Your task to perform on an android device: show emergency info Image 0: 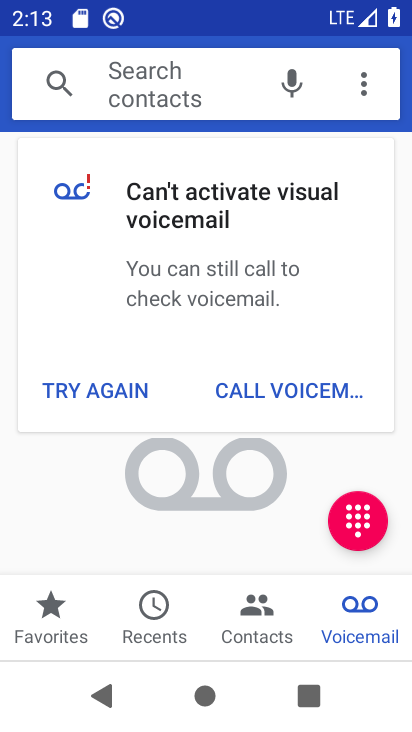
Step 0: press home button
Your task to perform on an android device: show emergency info Image 1: 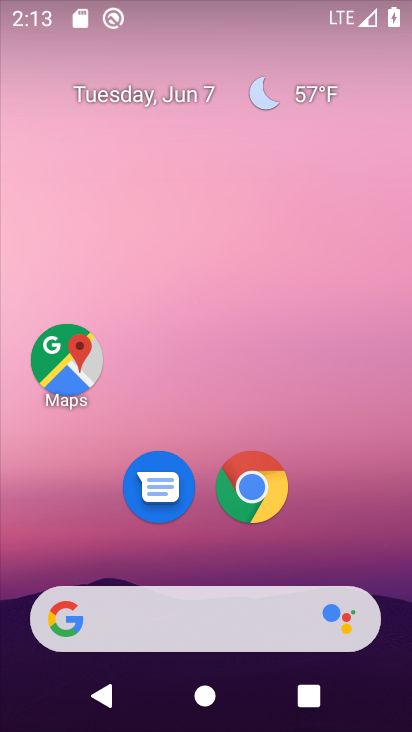
Step 1: drag from (223, 574) to (10, 410)
Your task to perform on an android device: show emergency info Image 2: 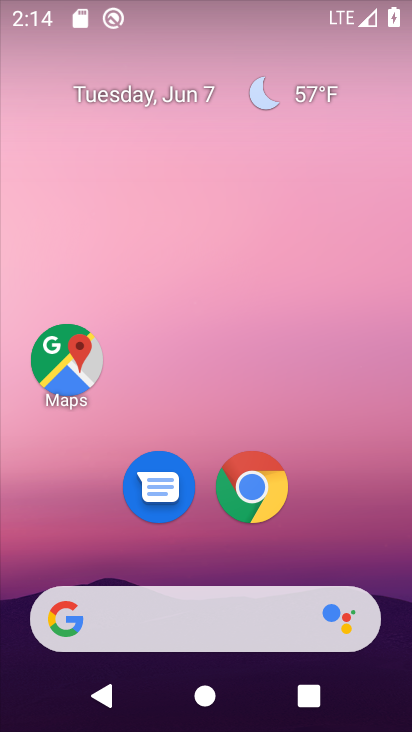
Step 2: click (258, 183)
Your task to perform on an android device: show emergency info Image 3: 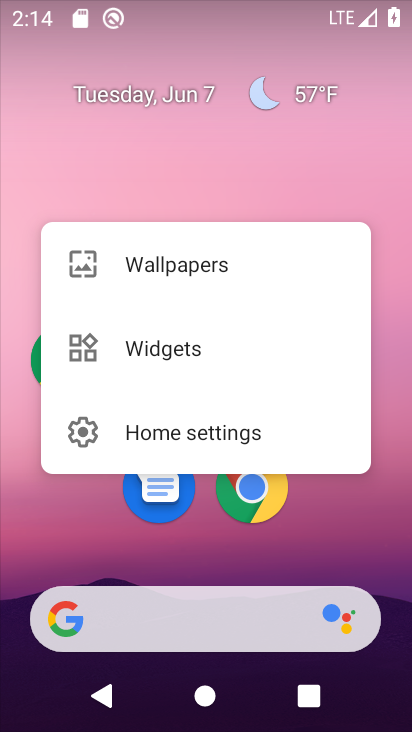
Step 3: click (176, 551)
Your task to perform on an android device: show emergency info Image 4: 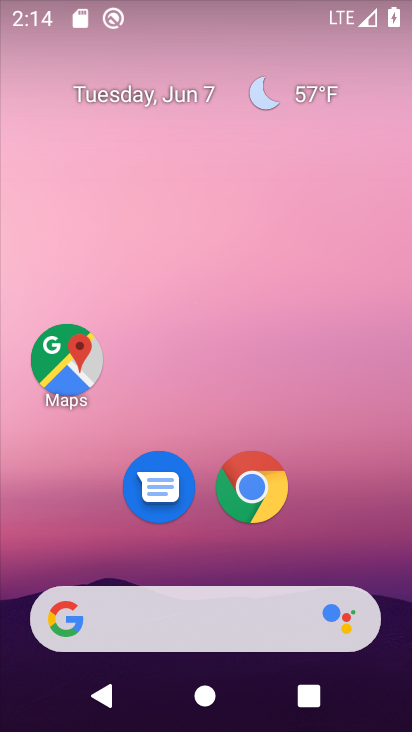
Step 4: drag from (204, 600) to (295, 206)
Your task to perform on an android device: show emergency info Image 5: 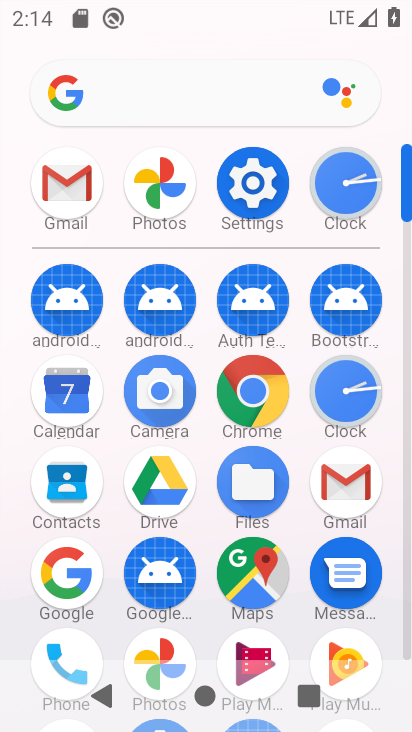
Step 5: click (258, 202)
Your task to perform on an android device: show emergency info Image 6: 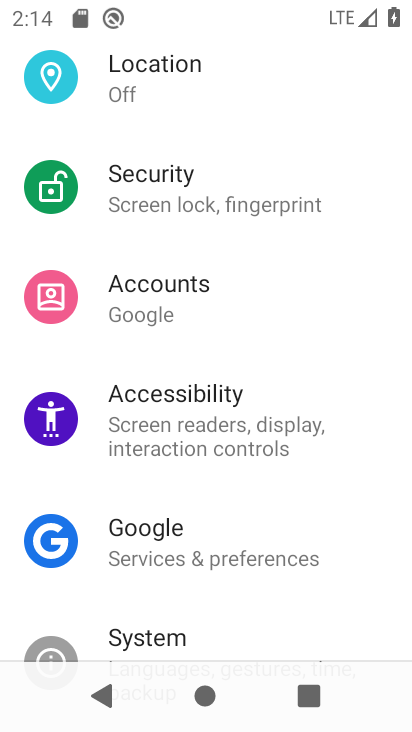
Step 6: drag from (228, 551) to (261, 22)
Your task to perform on an android device: show emergency info Image 7: 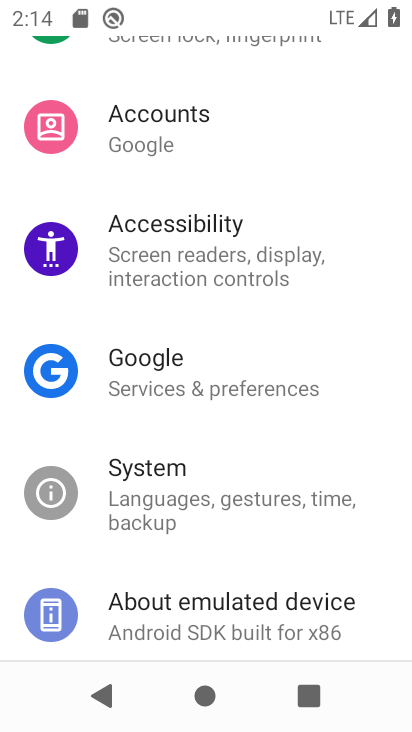
Step 7: drag from (220, 556) to (187, 20)
Your task to perform on an android device: show emergency info Image 8: 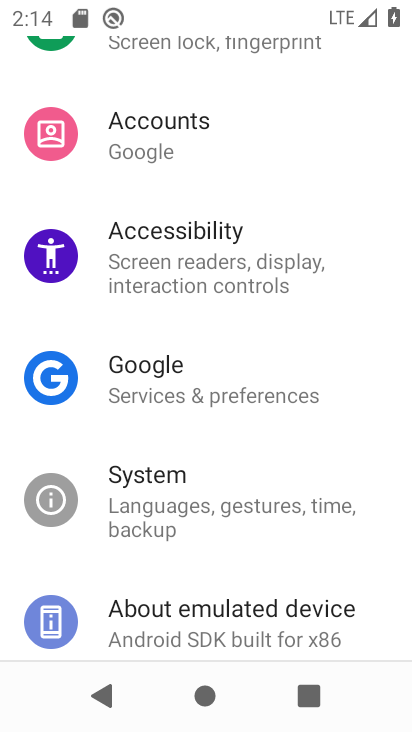
Step 8: click (214, 605)
Your task to perform on an android device: show emergency info Image 9: 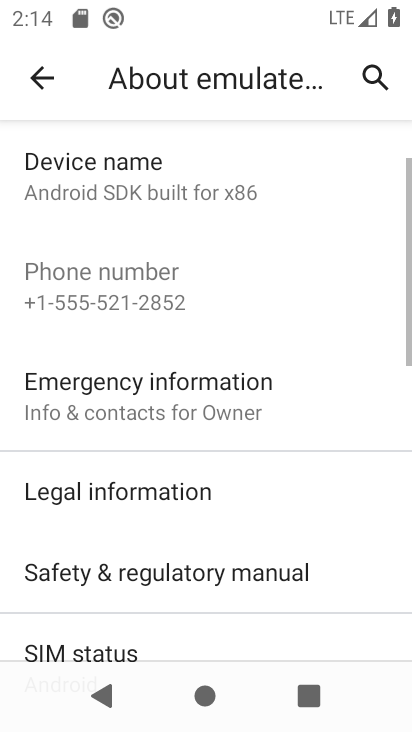
Step 9: drag from (181, 461) to (181, 305)
Your task to perform on an android device: show emergency info Image 10: 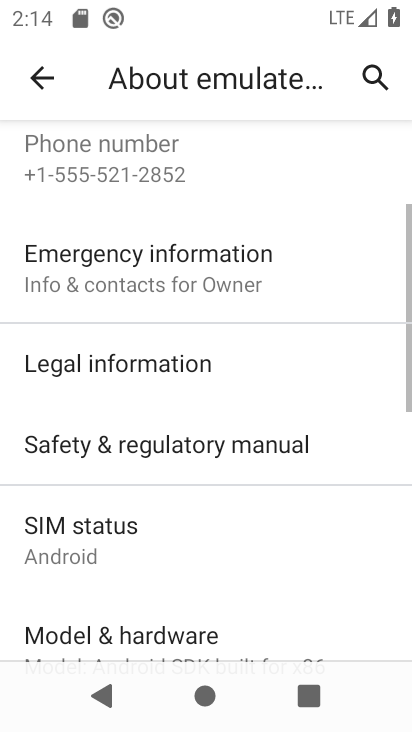
Step 10: click (145, 298)
Your task to perform on an android device: show emergency info Image 11: 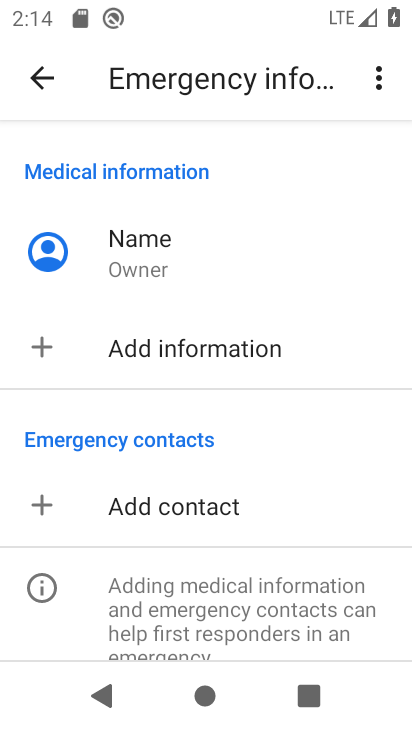
Step 11: task complete